Your task to perform on an android device: turn on data saver in the chrome app Image 0: 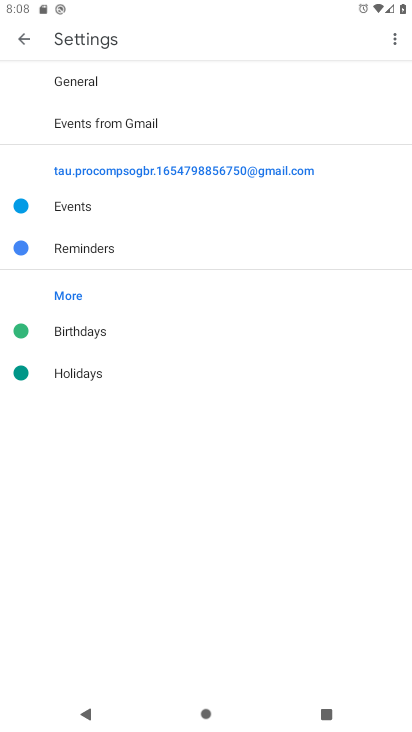
Step 0: press home button
Your task to perform on an android device: turn on data saver in the chrome app Image 1: 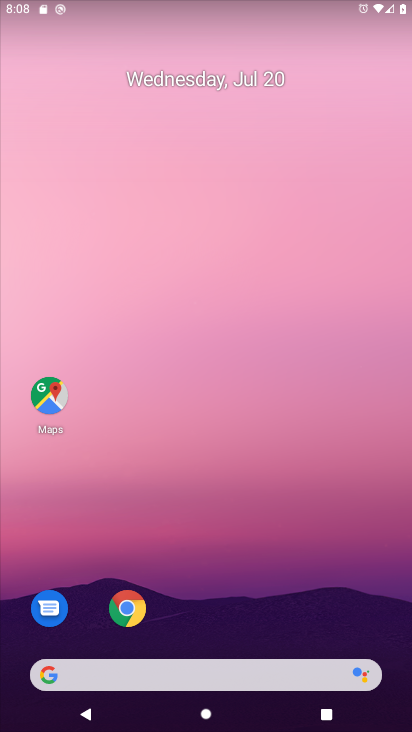
Step 1: click (121, 599)
Your task to perform on an android device: turn on data saver in the chrome app Image 2: 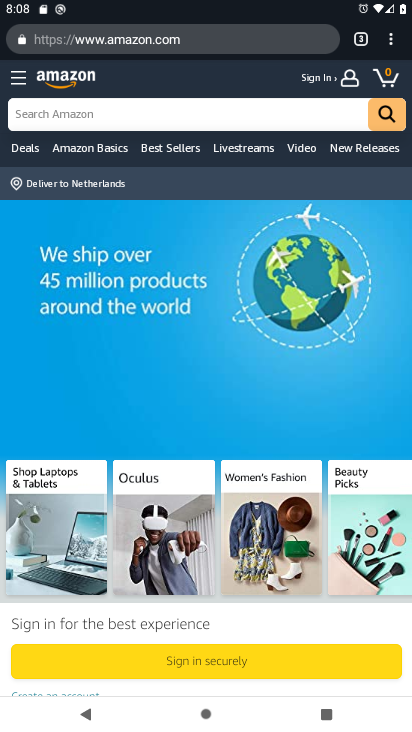
Step 2: click (394, 34)
Your task to perform on an android device: turn on data saver in the chrome app Image 3: 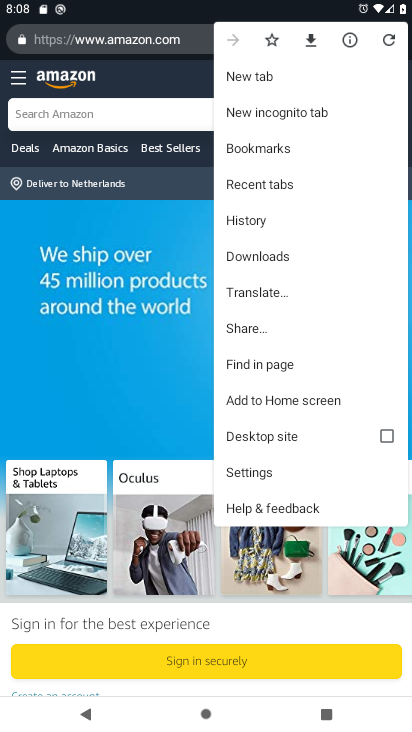
Step 3: click (245, 474)
Your task to perform on an android device: turn on data saver in the chrome app Image 4: 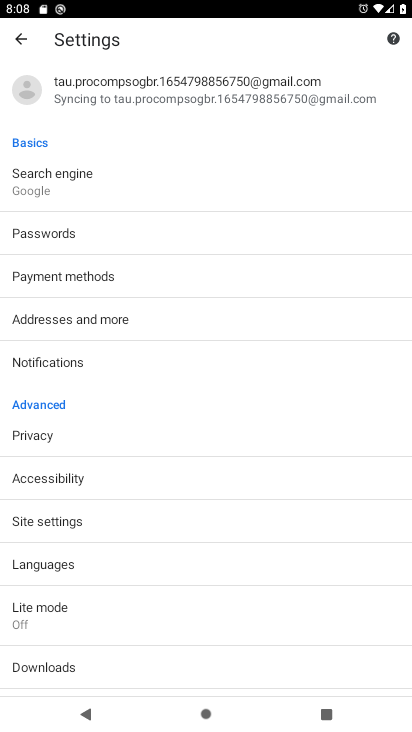
Step 4: click (79, 617)
Your task to perform on an android device: turn on data saver in the chrome app Image 5: 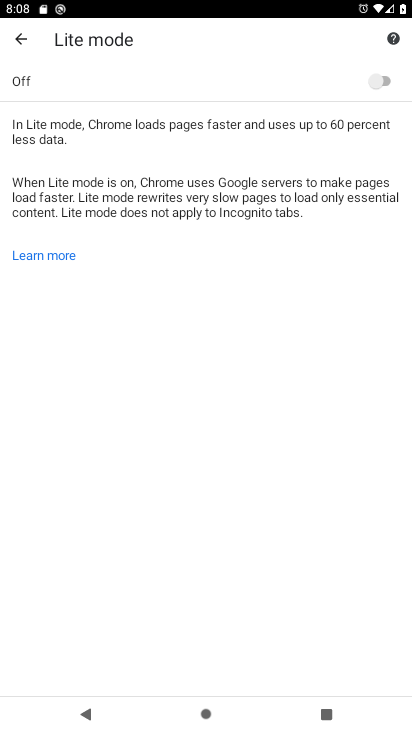
Step 5: click (384, 83)
Your task to perform on an android device: turn on data saver in the chrome app Image 6: 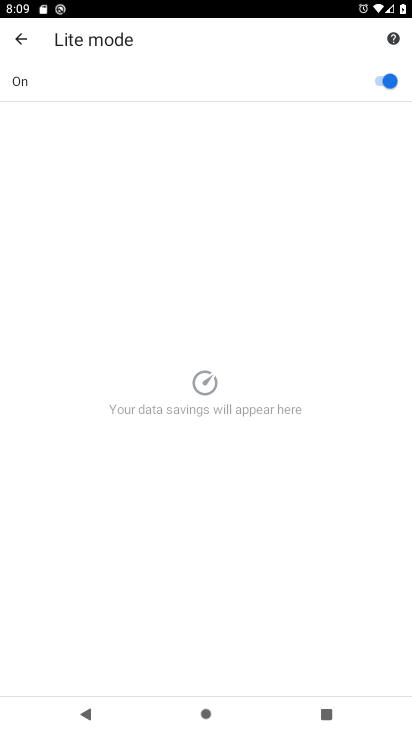
Step 6: task complete